Your task to perform on an android device: Open the web browser Image 0: 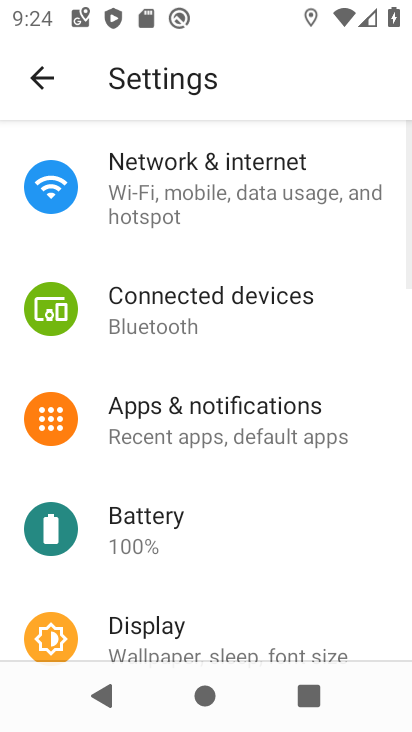
Step 0: press home button
Your task to perform on an android device: Open the web browser Image 1: 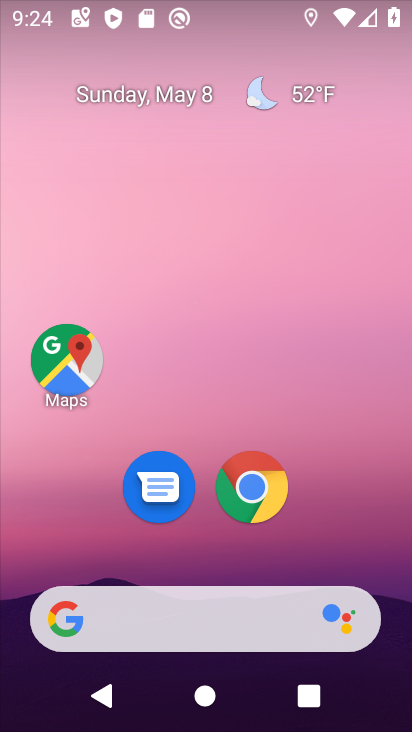
Step 1: click (228, 505)
Your task to perform on an android device: Open the web browser Image 2: 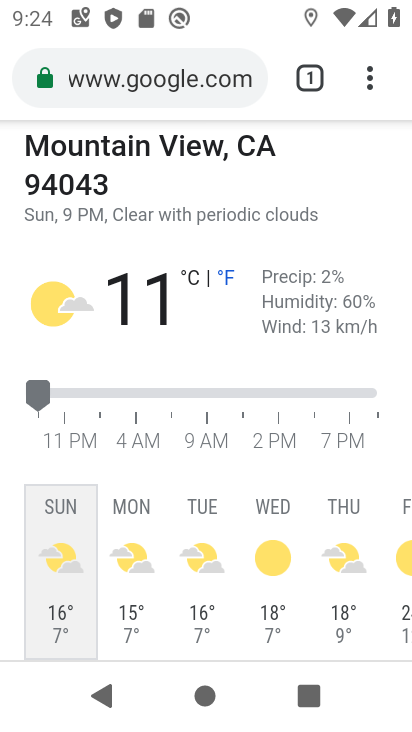
Step 2: task complete